Your task to perform on an android device: Go to eBay Image 0: 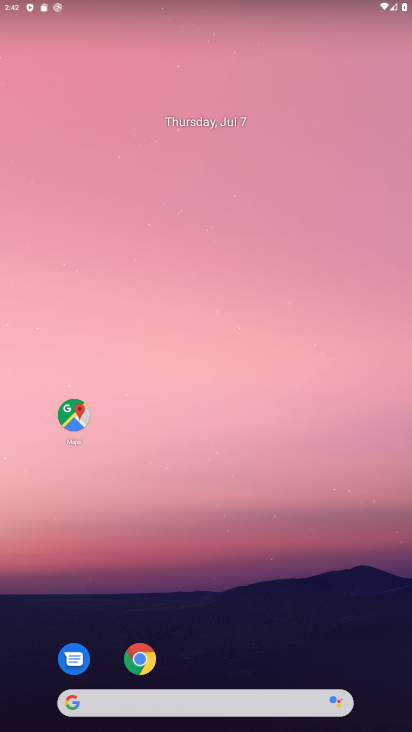
Step 0: click (142, 658)
Your task to perform on an android device: Go to eBay Image 1: 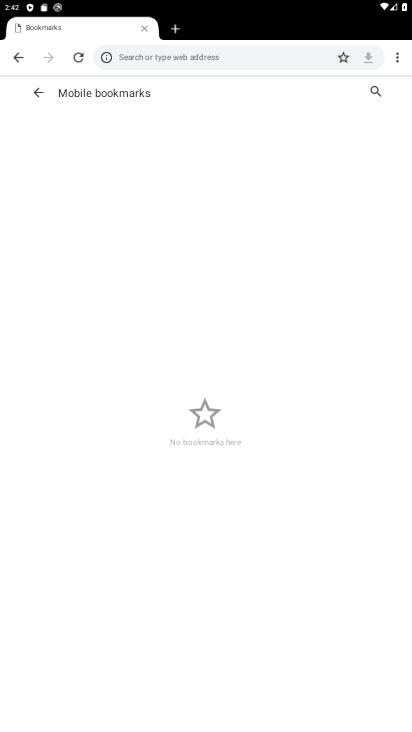
Step 1: click (193, 62)
Your task to perform on an android device: Go to eBay Image 2: 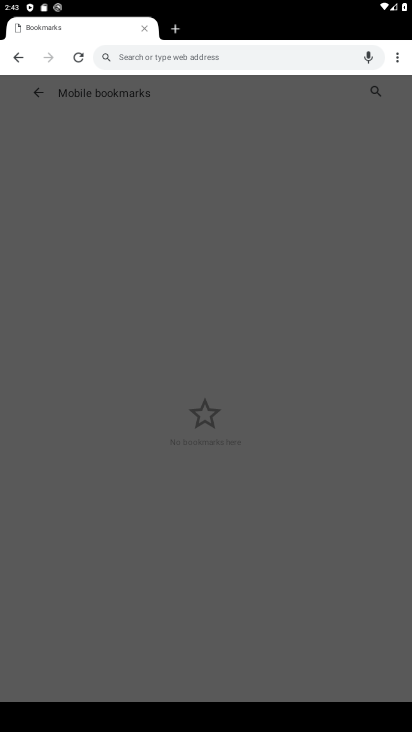
Step 2: type "eBay"
Your task to perform on an android device: Go to eBay Image 3: 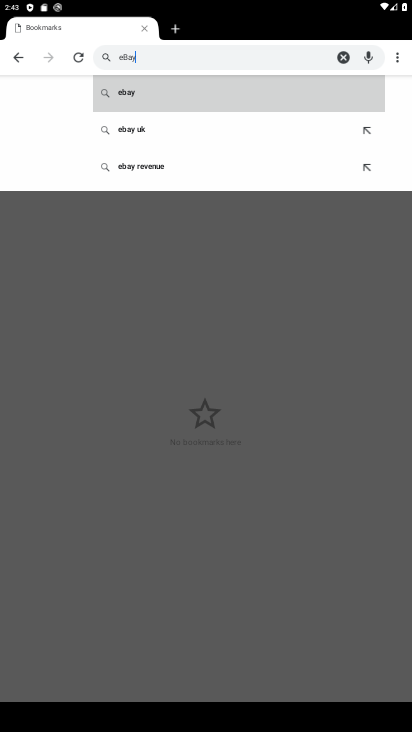
Step 3: click (299, 87)
Your task to perform on an android device: Go to eBay Image 4: 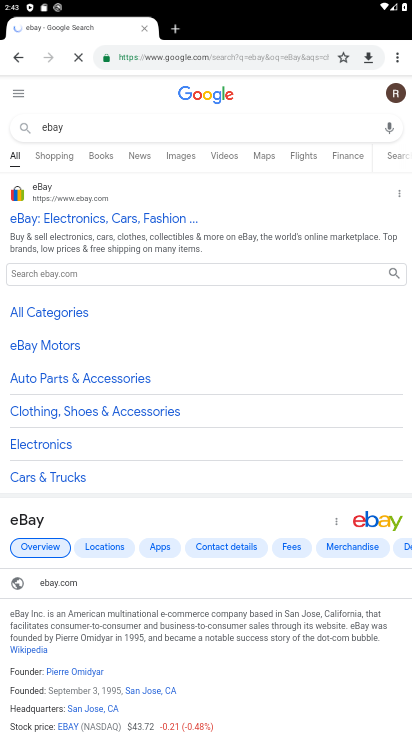
Step 4: click (179, 214)
Your task to perform on an android device: Go to eBay Image 5: 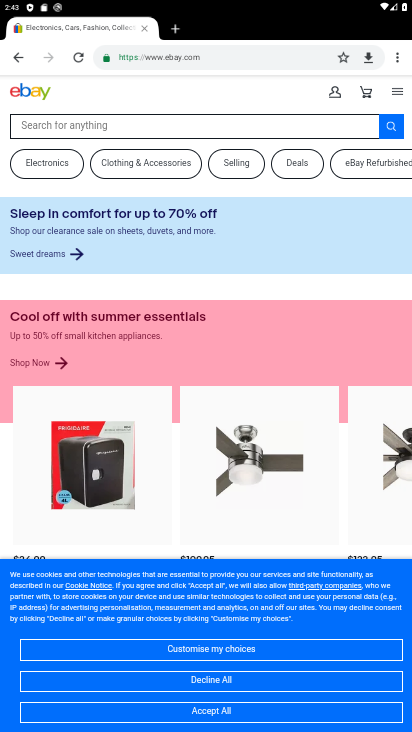
Step 5: task complete